Your task to perform on an android device: What is the recent news? Image 0: 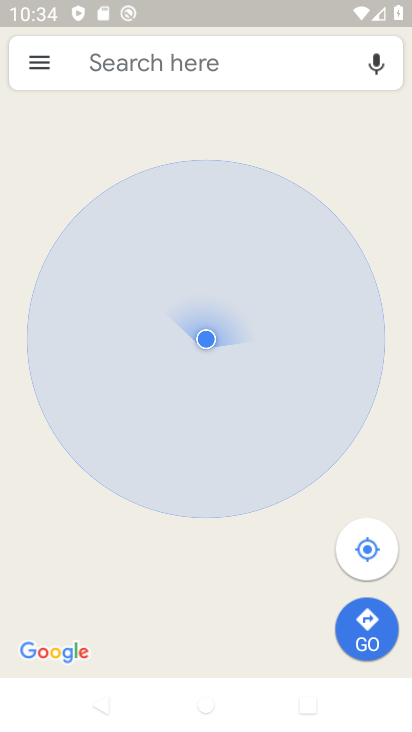
Step 0: press home button
Your task to perform on an android device: What is the recent news? Image 1: 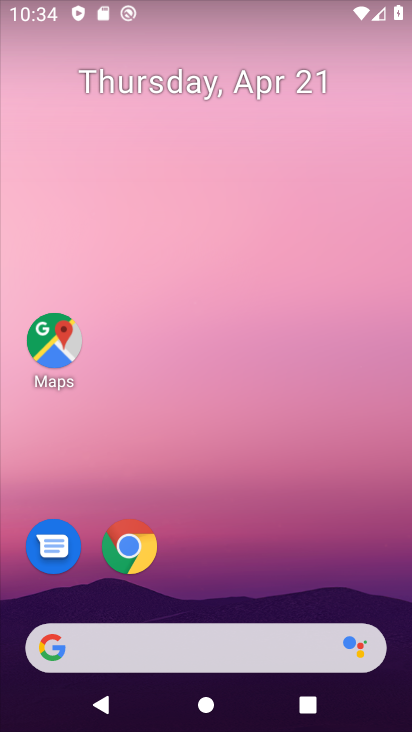
Step 1: drag from (291, 593) to (289, 155)
Your task to perform on an android device: What is the recent news? Image 2: 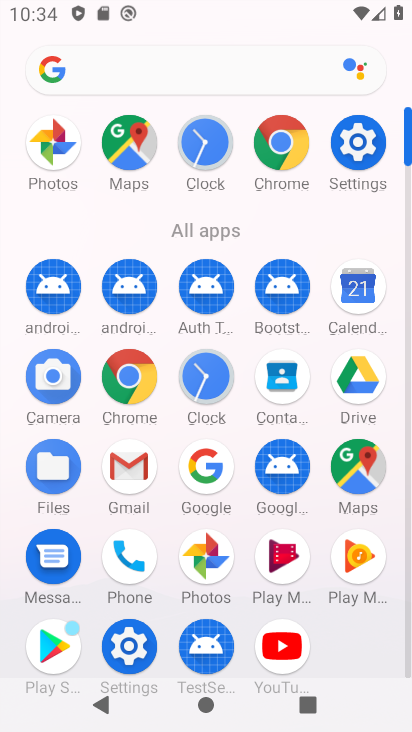
Step 2: click (120, 375)
Your task to perform on an android device: What is the recent news? Image 3: 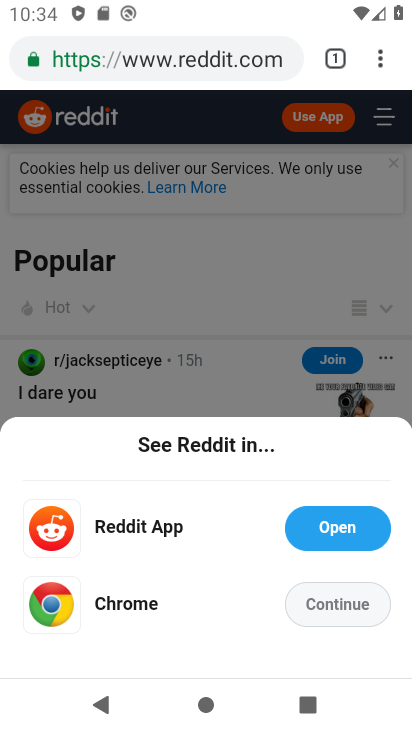
Step 3: click (214, 70)
Your task to perform on an android device: What is the recent news? Image 4: 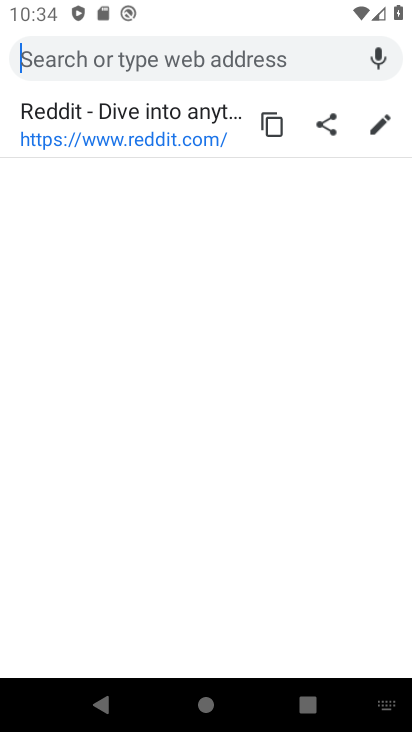
Step 4: type "news"
Your task to perform on an android device: What is the recent news? Image 5: 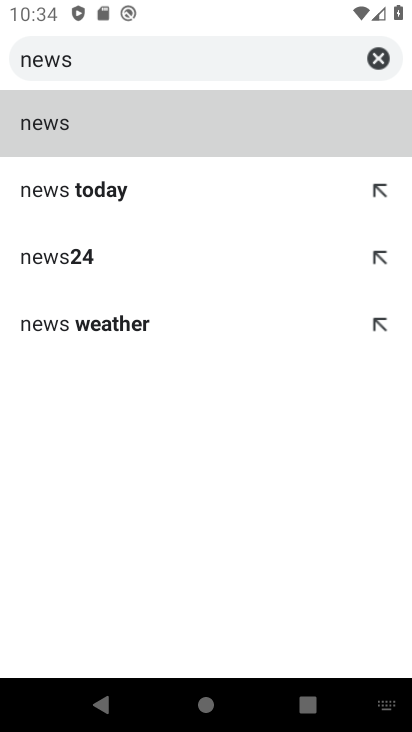
Step 5: press enter
Your task to perform on an android device: What is the recent news? Image 6: 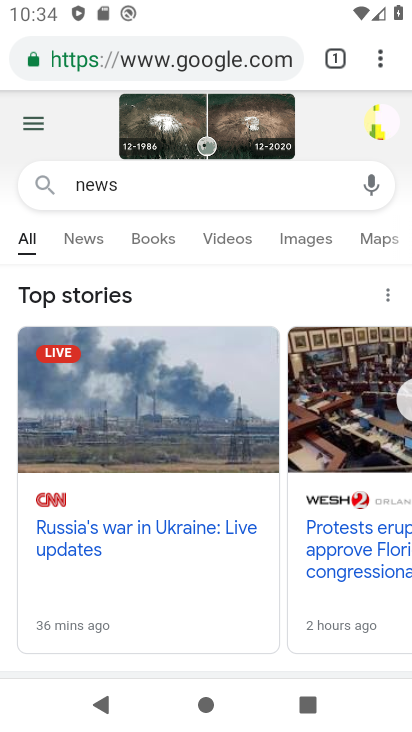
Step 6: click (79, 247)
Your task to perform on an android device: What is the recent news? Image 7: 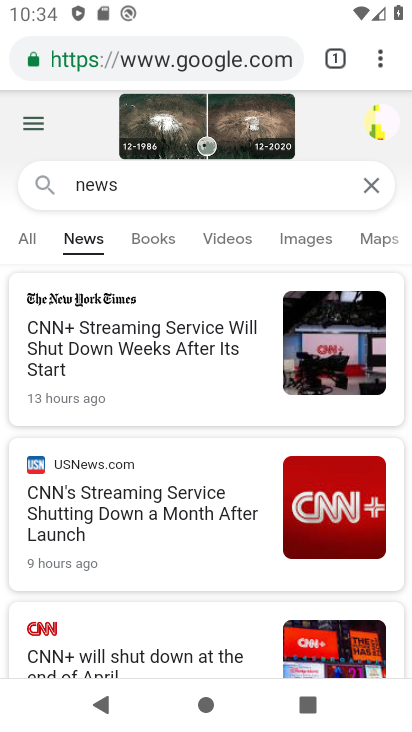
Step 7: task complete